Your task to perform on an android device: Go to eBay Image 0: 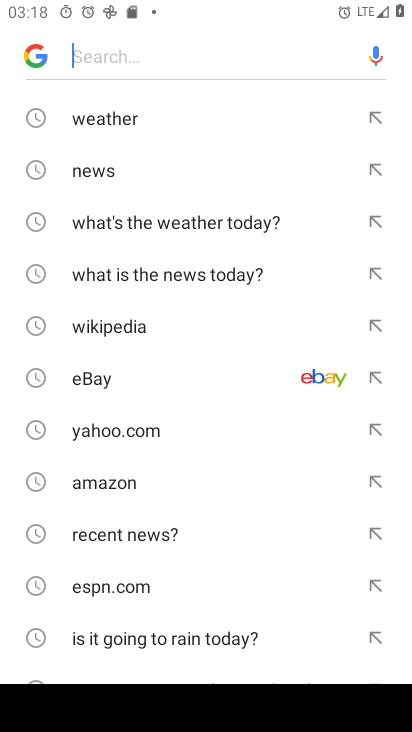
Step 0: press home button
Your task to perform on an android device: Go to eBay Image 1: 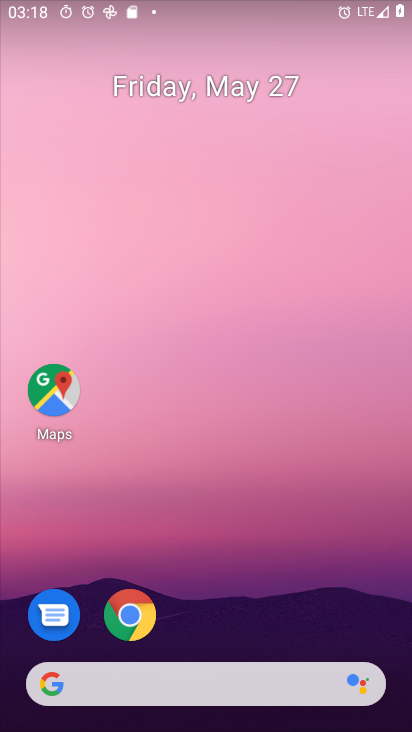
Step 1: drag from (333, 626) to (364, 240)
Your task to perform on an android device: Go to eBay Image 2: 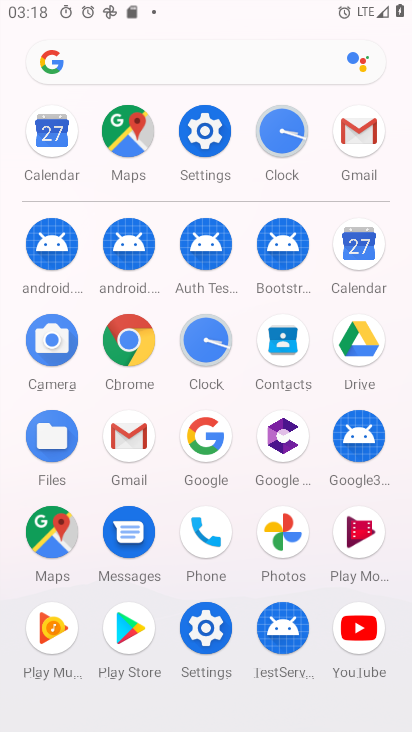
Step 2: click (139, 354)
Your task to perform on an android device: Go to eBay Image 3: 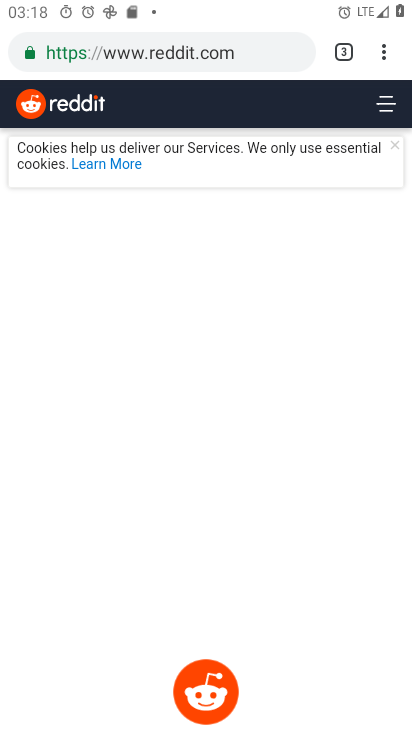
Step 3: click (232, 55)
Your task to perform on an android device: Go to eBay Image 4: 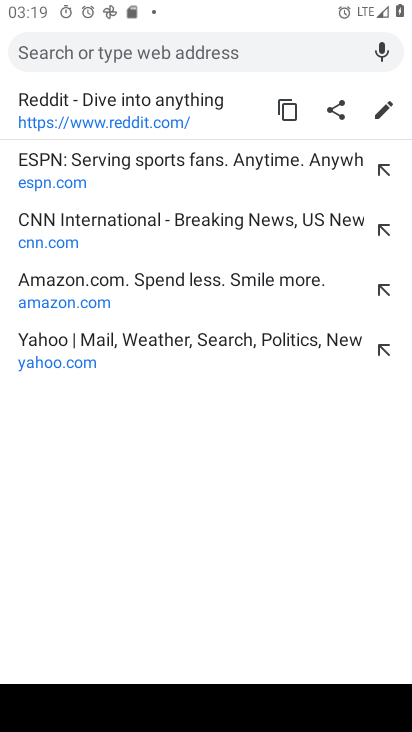
Step 4: type "ebay"
Your task to perform on an android device: Go to eBay Image 5: 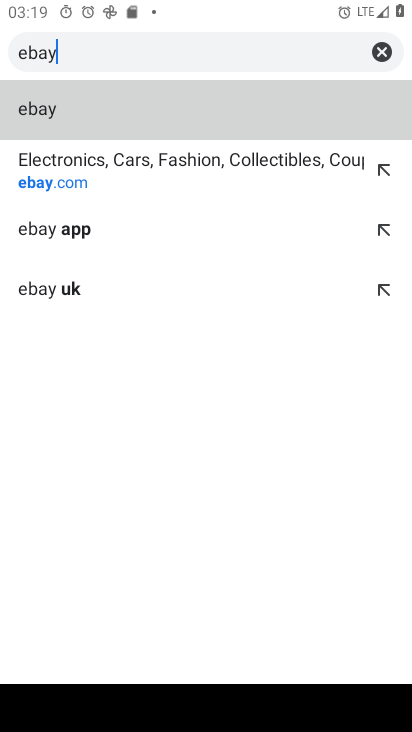
Step 5: click (210, 166)
Your task to perform on an android device: Go to eBay Image 6: 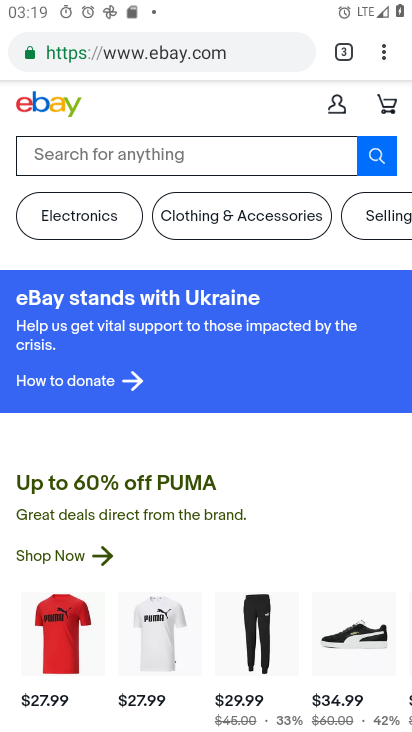
Step 6: task complete